Your task to perform on an android device: See recent photos Image 0: 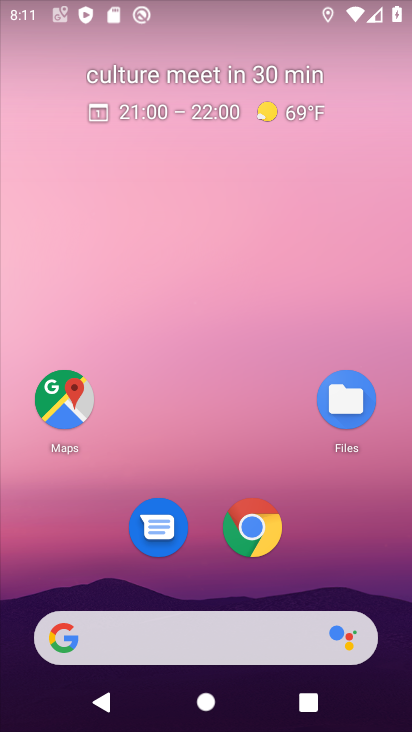
Step 0: drag from (229, 563) to (254, 147)
Your task to perform on an android device: See recent photos Image 1: 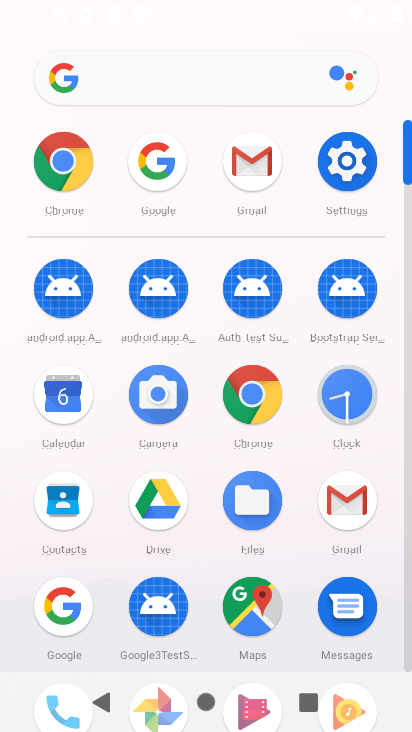
Step 1: drag from (210, 652) to (220, 302)
Your task to perform on an android device: See recent photos Image 2: 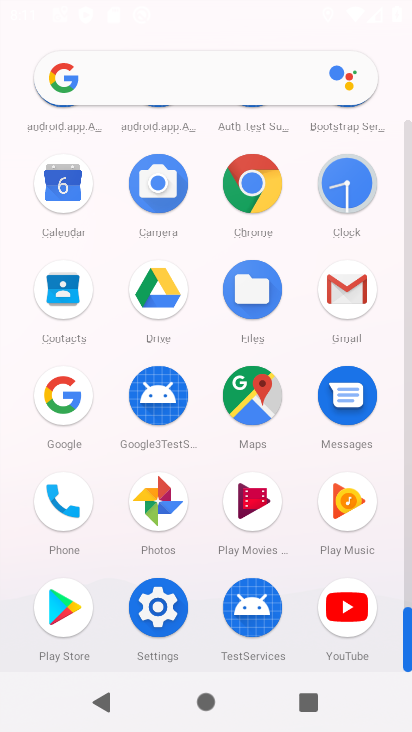
Step 2: click (158, 503)
Your task to perform on an android device: See recent photos Image 3: 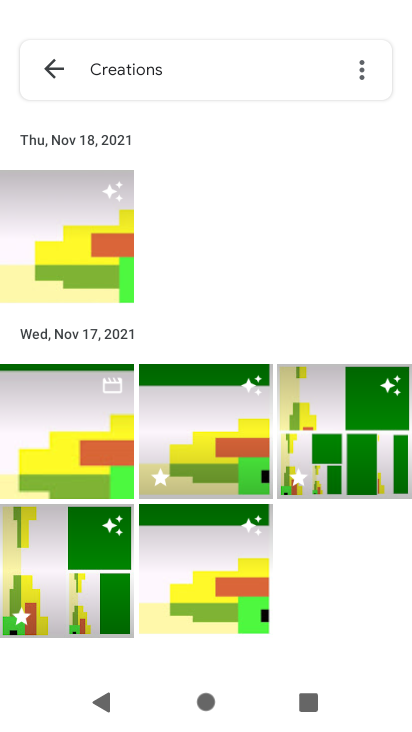
Step 3: task complete